Your task to perform on an android device: What's on my calendar today? Image 0: 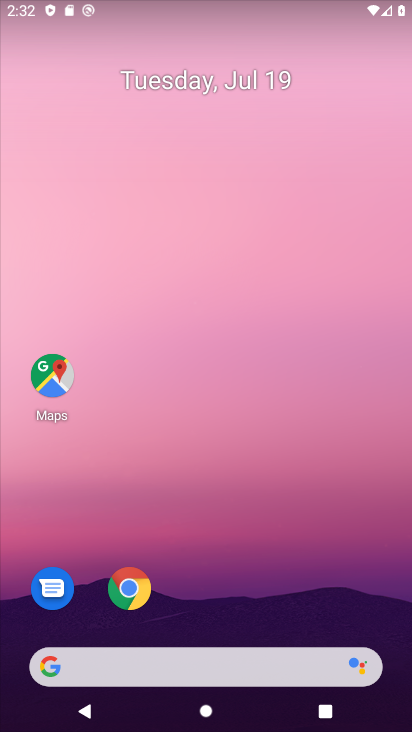
Step 0: drag from (205, 638) to (230, 88)
Your task to perform on an android device: What's on my calendar today? Image 1: 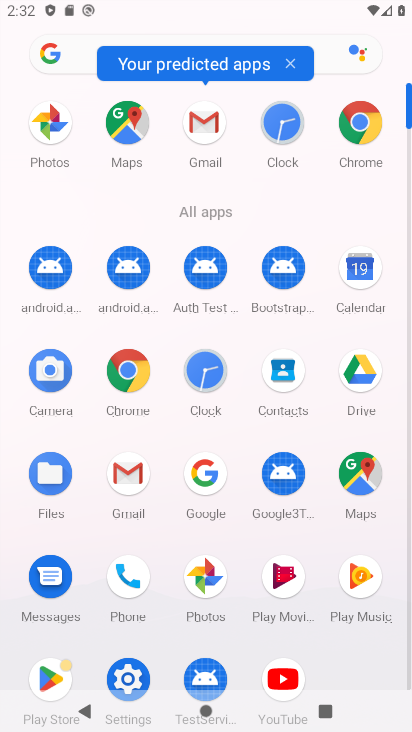
Step 1: click (356, 269)
Your task to perform on an android device: What's on my calendar today? Image 2: 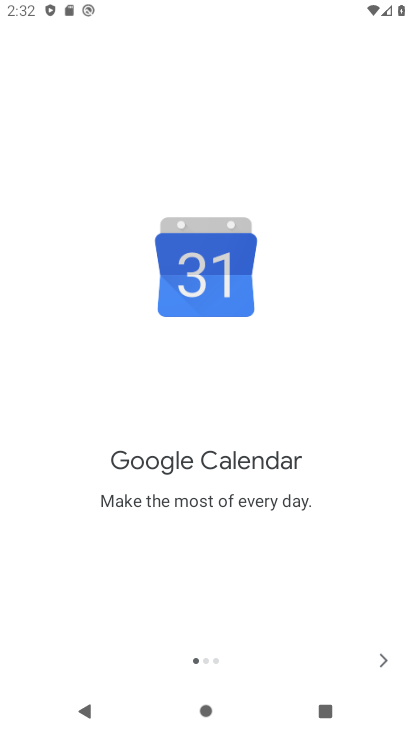
Step 2: click (387, 657)
Your task to perform on an android device: What's on my calendar today? Image 3: 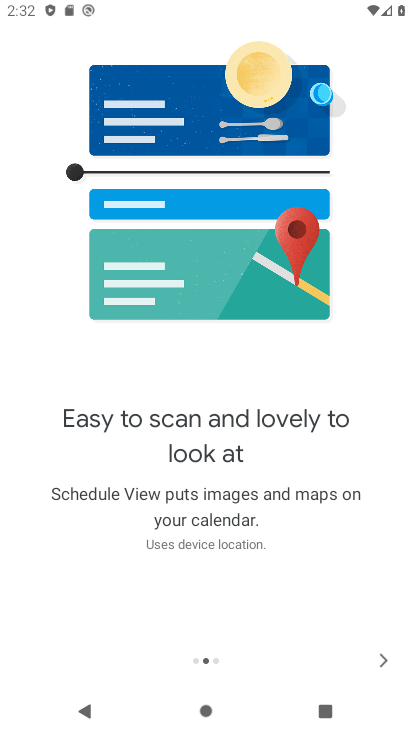
Step 3: click (383, 660)
Your task to perform on an android device: What's on my calendar today? Image 4: 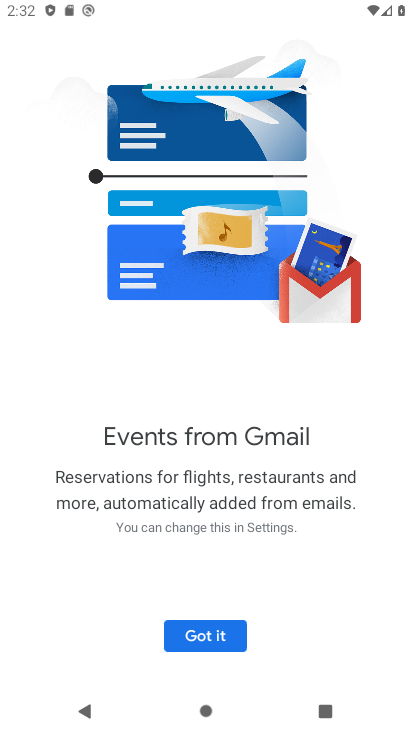
Step 4: click (204, 641)
Your task to perform on an android device: What's on my calendar today? Image 5: 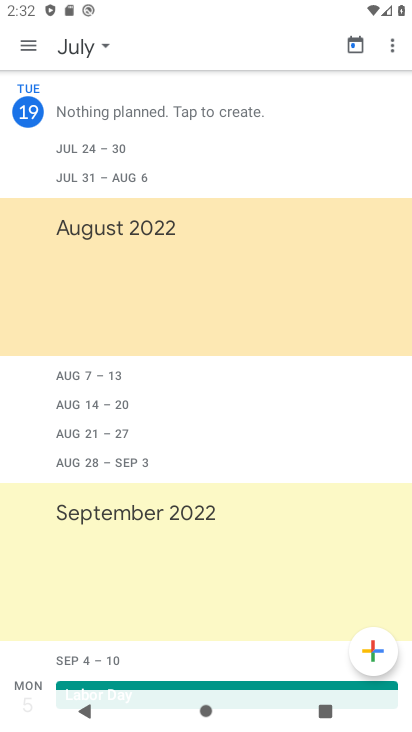
Step 5: click (98, 48)
Your task to perform on an android device: What's on my calendar today? Image 6: 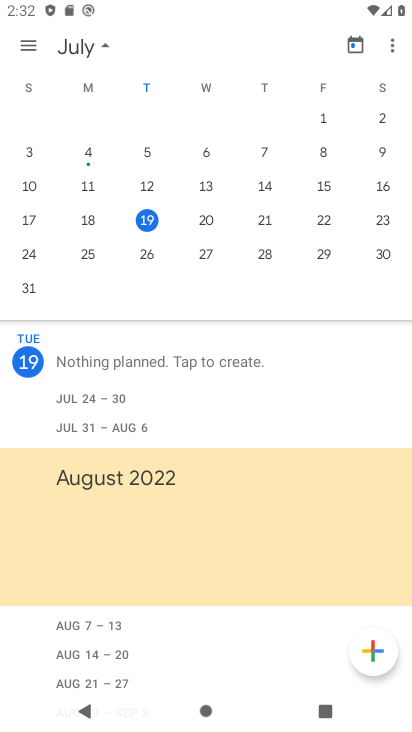
Step 6: click (147, 223)
Your task to perform on an android device: What's on my calendar today? Image 7: 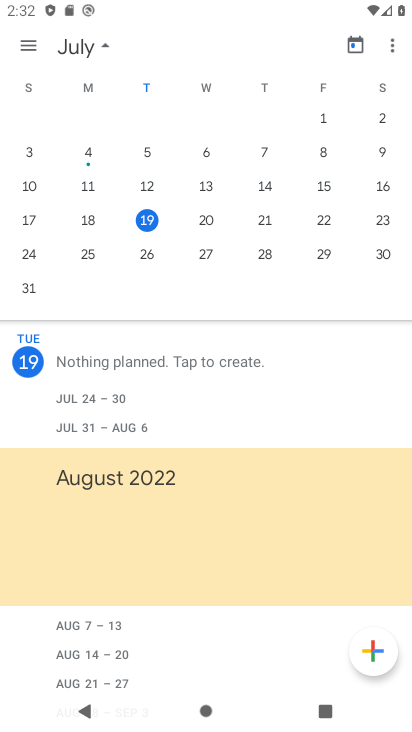
Step 7: task complete